Your task to perform on an android device: Open eBay Image 0: 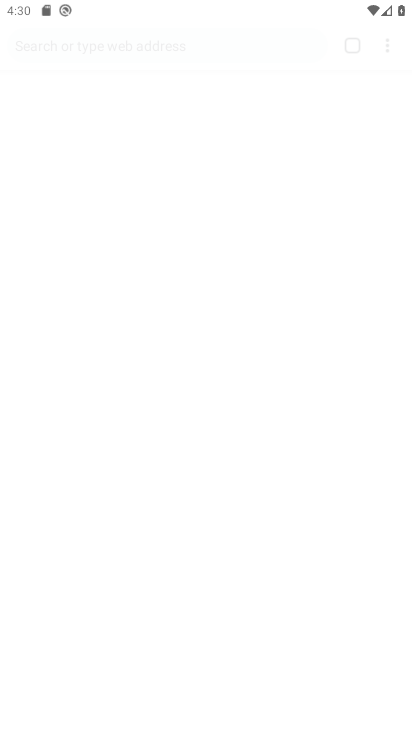
Step 0: drag from (307, 677) to (143, 177)
Your task to perform on an android device: Open eBay Image 1: 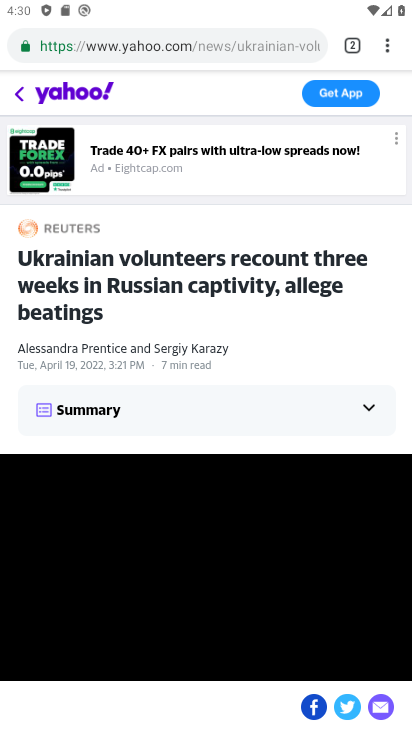
Step 1: press home button
Your task to perform on an android device: Open eBay Image 2: 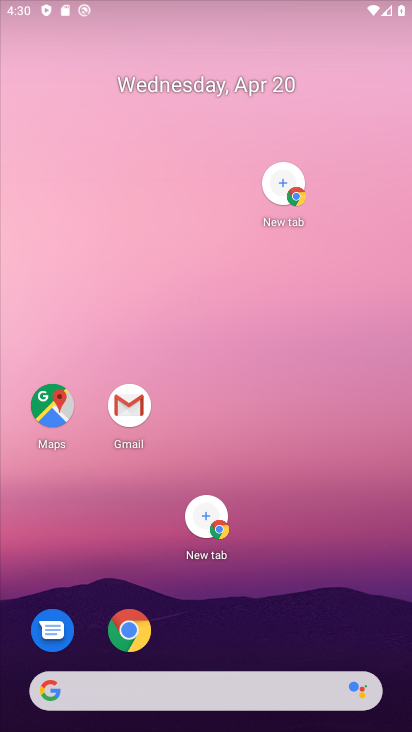
Step 2: drag from (225, 596) to (62, 164)
Your task to perform on an android device: Open eBay Image 3: 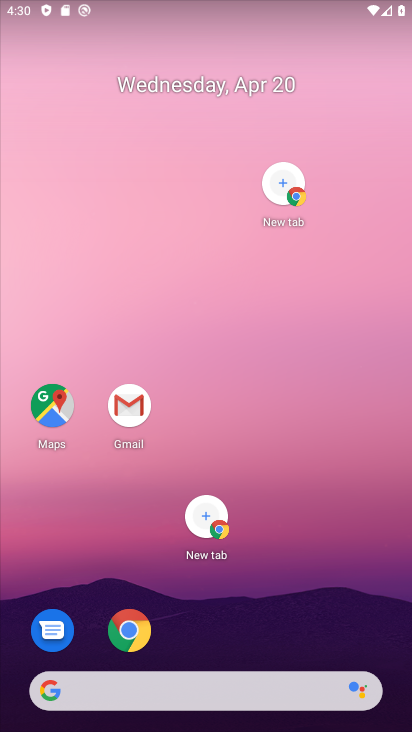
Step 3: drag from (195, 454) to (110, 221)
Your task to perform on an android device: Open eBay Image 4: 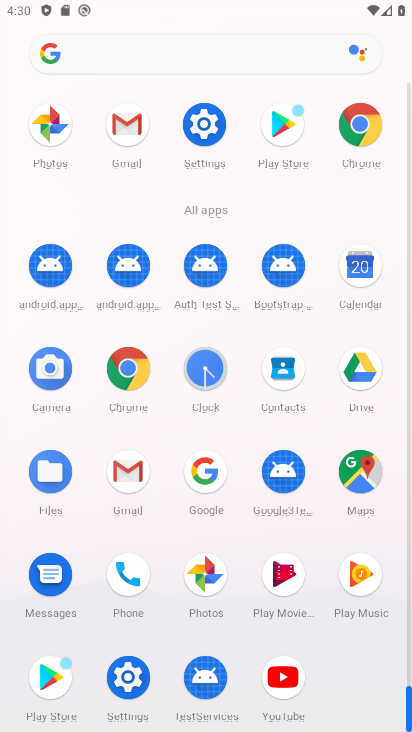
Step 4: click (361, 133)
Your task to perform on an android device: Open eBay Image 5: 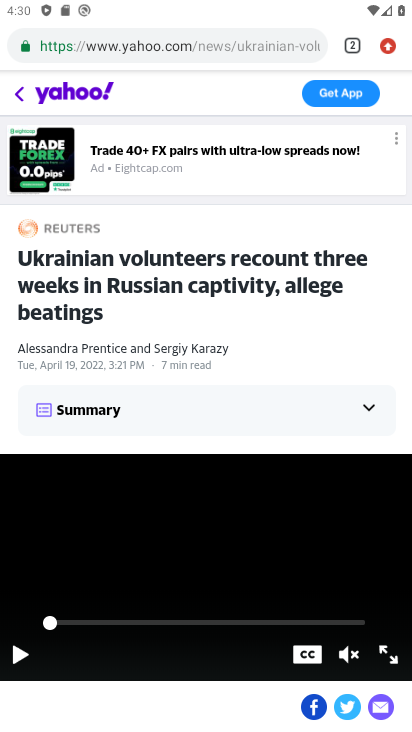
Step 5: drag from (384, 40) to (301, 542)
Your task to perform on an android device: Open eBay Image 6: 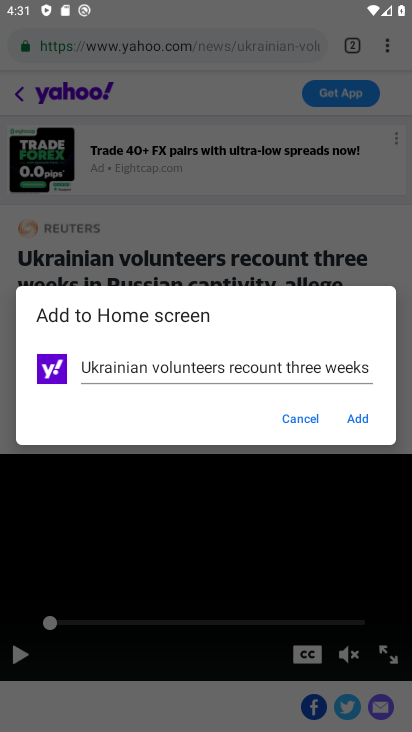
Step 6: click (209, 478)
Your task to perform on an android device: Open eBay Image 7: 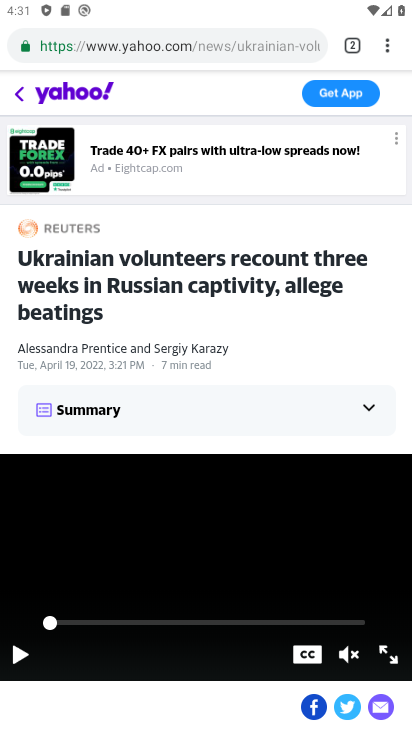
Step 7: click (311, 416)
Your task to perform on an android device: Open eBay Image 8: 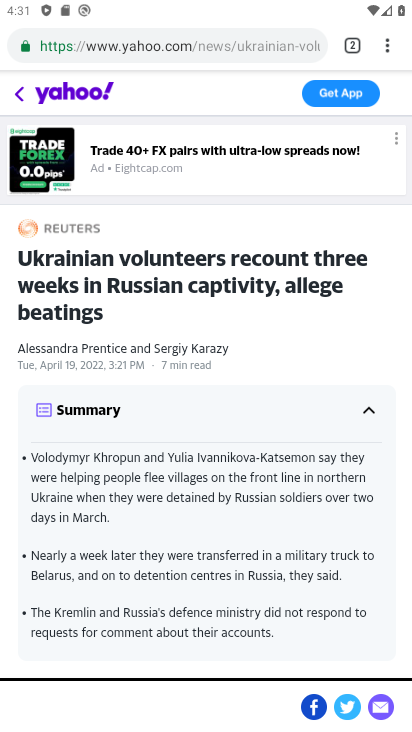
Step 8: press home button
Your task to perform on an android device: Open eBay Image 9: 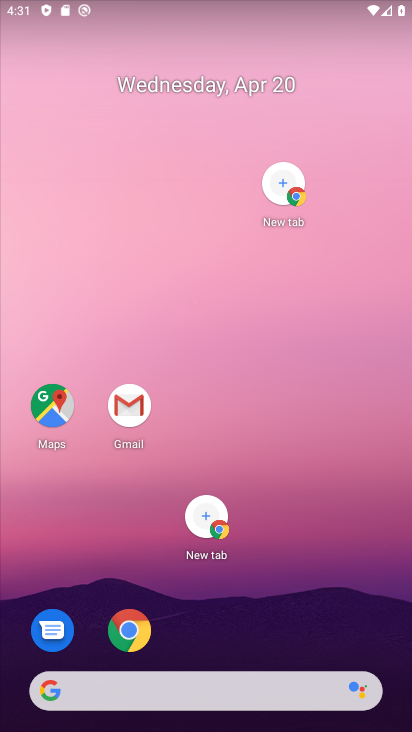
Step 9: drag from (235, 720) to (177, 235)
Your task to perform on an android device: Open eBay Image 10: 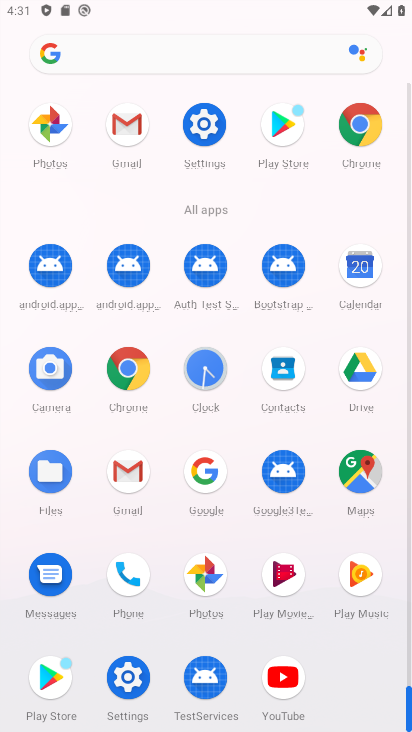
Step 10: click (362, 142)
Your task to perform on an android device: Open eBay Image 11: 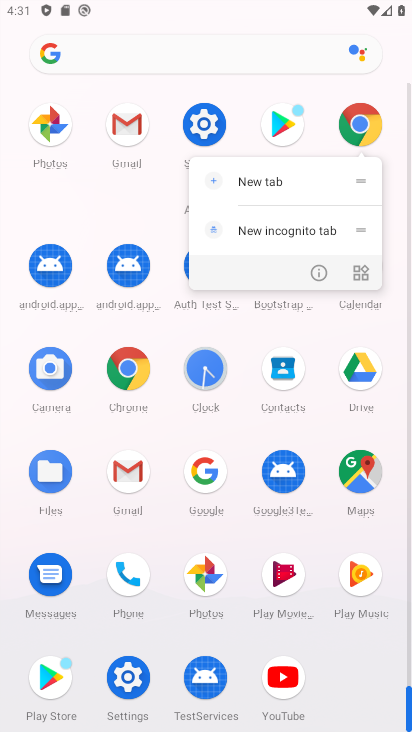
Step 11: click (265, 187)
Your task to perform on an android device: Open eBay Image 12: 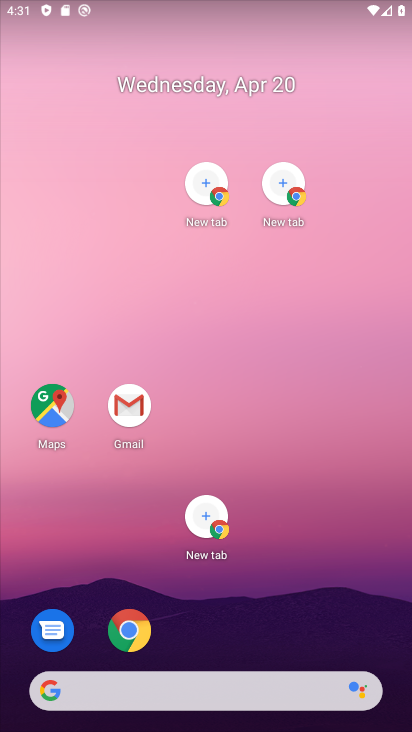
Step 12: drag from (134, 238) to (94, 106)
Your task to perform on an android device: Open eBay Image 13: 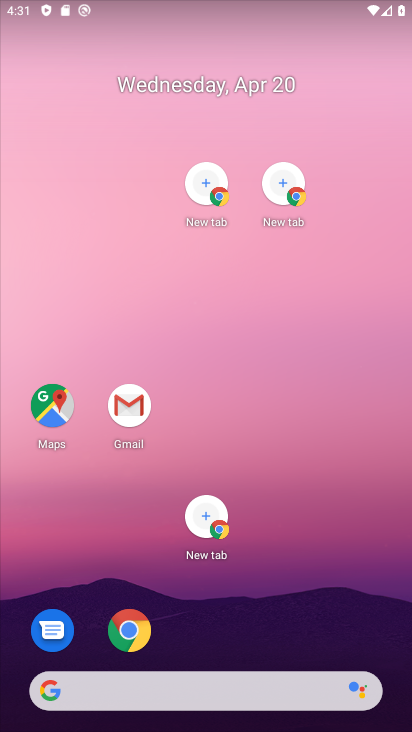
Step 13: click (55, 106)
Your task to perform on an android device: Open eBay Image 14: 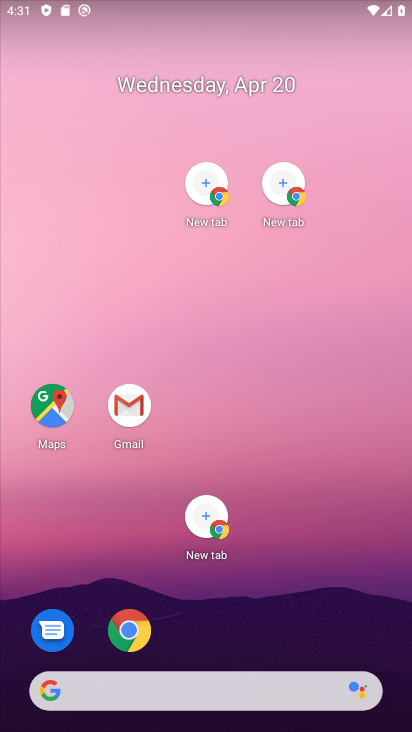
Step 14: drag from (171, 616) to (68, 161)
Your task to perform on an android device: Open eBay Image 15: 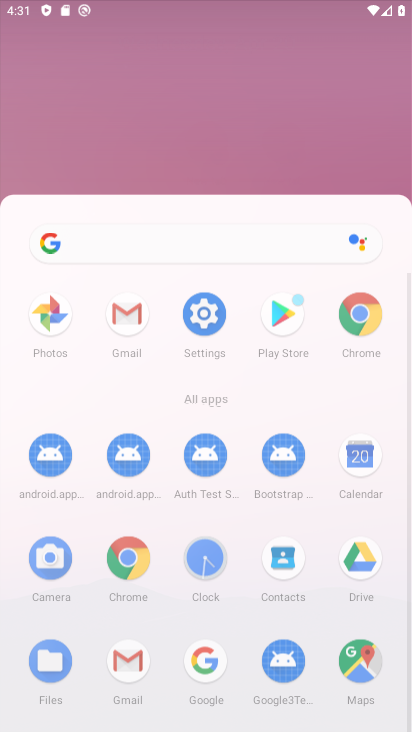
Step 15: drag from (235, 680) to (176, 62)
Your task to perform on an android device: Open eBay Image 16: 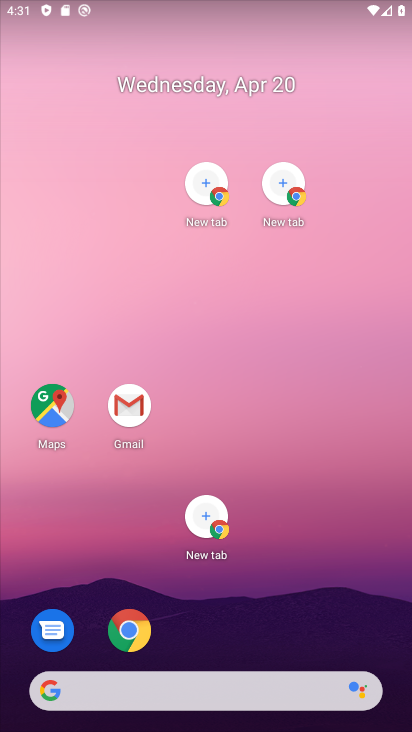
Step 16: click (367, 125)
Your task to perform on an android device: Open eBay Image 17: 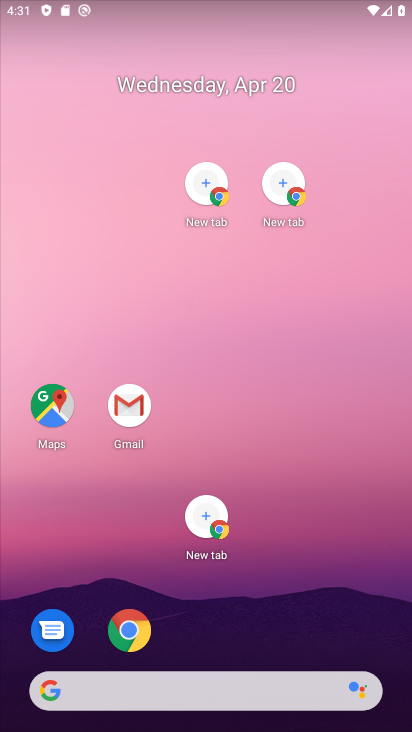
Step 17: click (129, 640)
Your task to perform on an android device: Open eBay Image 18: 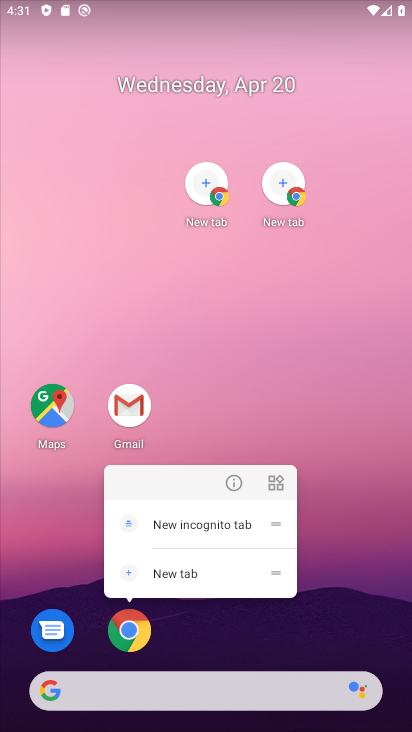
Step 18: click (133, 612)
Your task to perform on an android device: Open eBay Image 19: 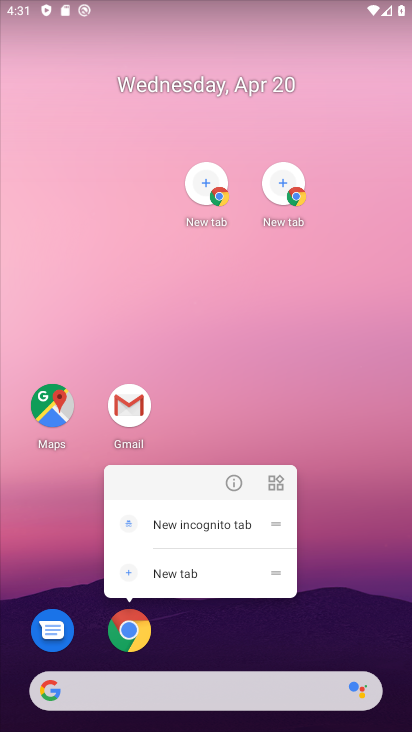
Step 19: click (132, 613)
Your task to perform on an android device: Open eBay Image 20: 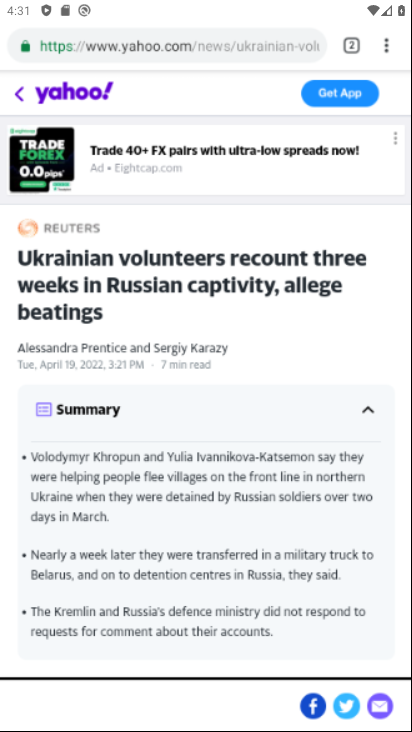
Step 20: click (124, 590)
Your task to perform on an android device: Open eBay Image 21: 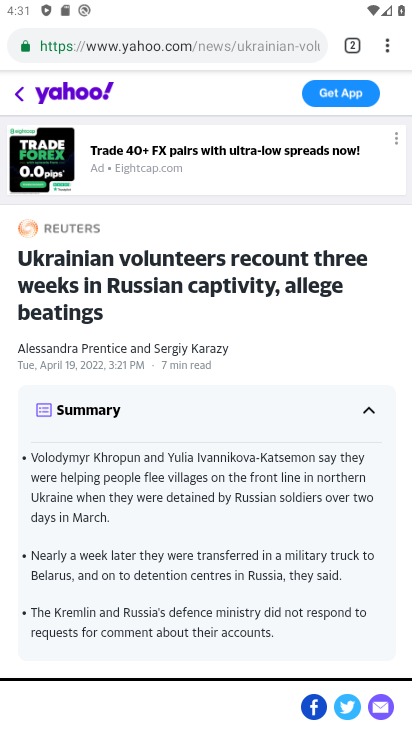
Step 21: click (124, 590)
Your task to perform on an android device: Open eBay Image 22: 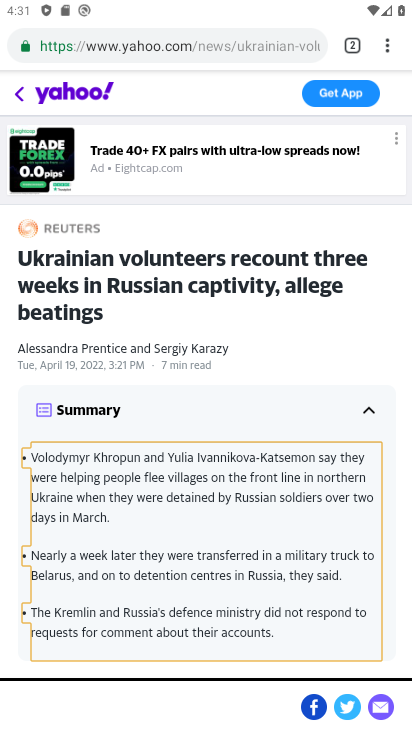
Step 22: drag from (378, 47) to (225, 146)
Your task to perform on an android device: Open eBay Image 23: 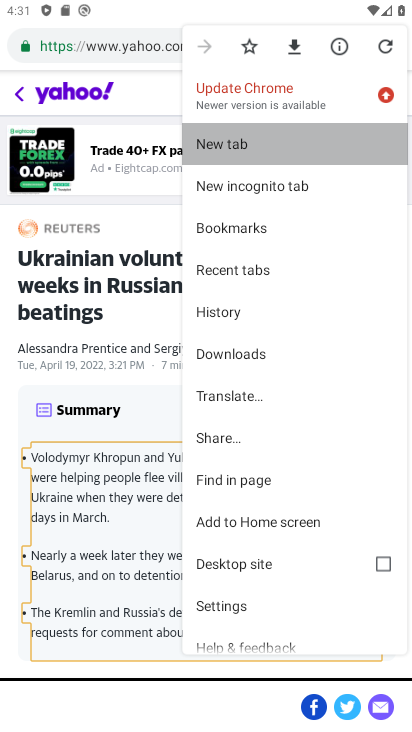
Step 23: click (225, 146)
Your task to perform on an android device: Open eBay Image 24: 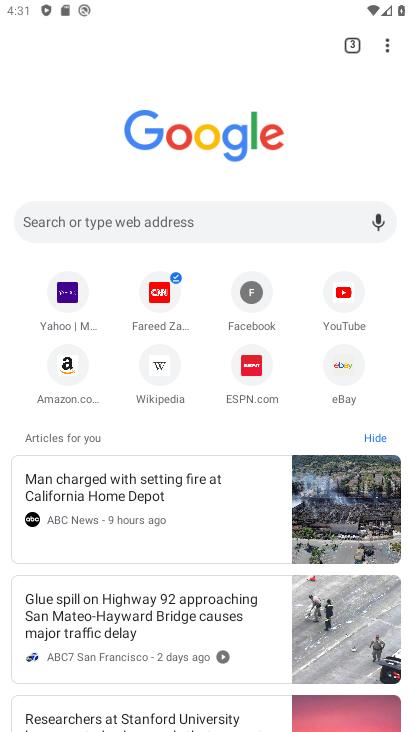
Step 24: click (347, 365)
Your task to perform on an android device: Open eBay Image 25: 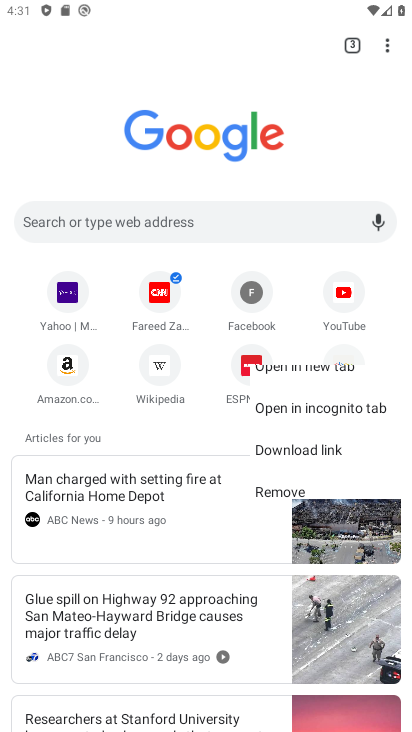
Step 25: click (352, 362)
Your task to perform on an android device: Open eBay Image 26: 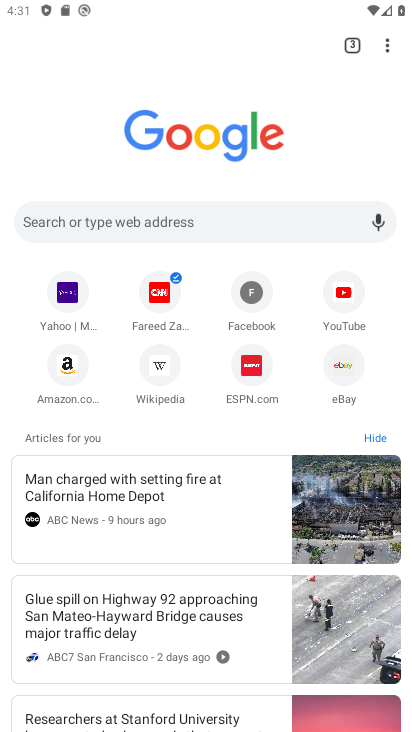
Step 26: click (352, 362)
Your task to perform on an android device: Open eBay Image 27: 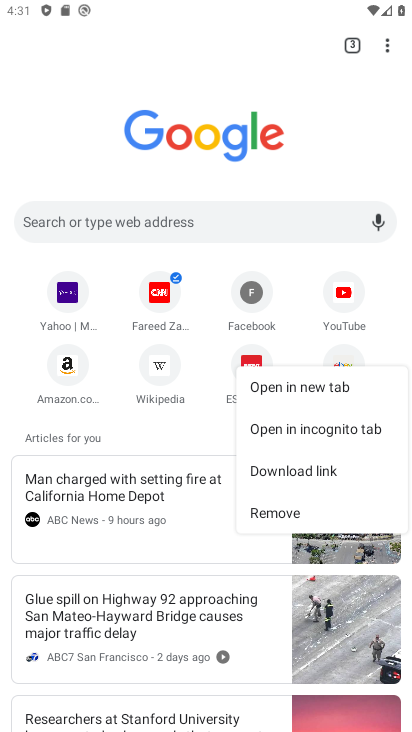
Step 27: click (322, 384)
Your task to perform on an android device: Open eBay Image 28: 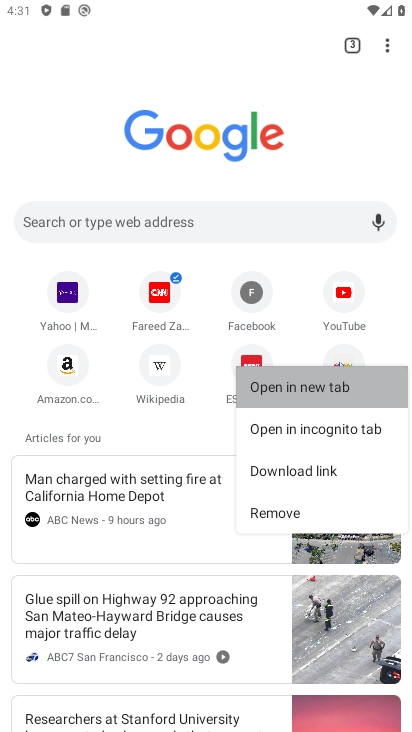
Step 28: click (322, 384)
Your task to perform on an android device: Open eBay Image 29: 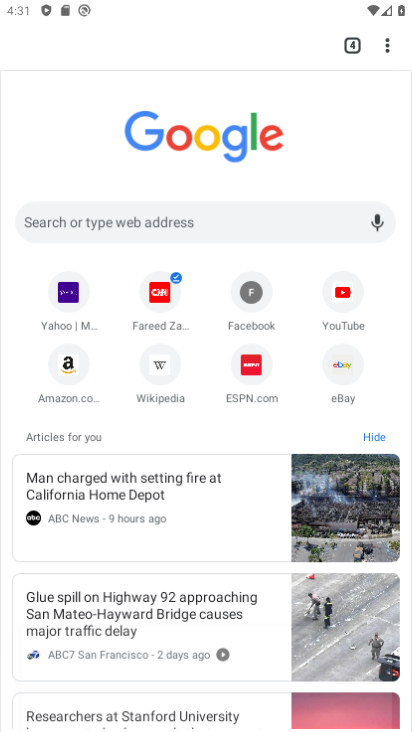
Step 29: click (322, 384)
Your task to perform on an android device: Open eBay Image 30: 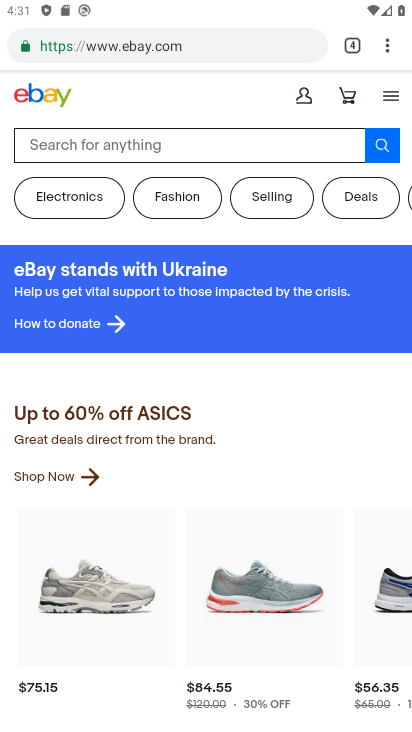
Step 30: task complete